Your task to perform on an android device: add a contact in the contacts app Image 0: 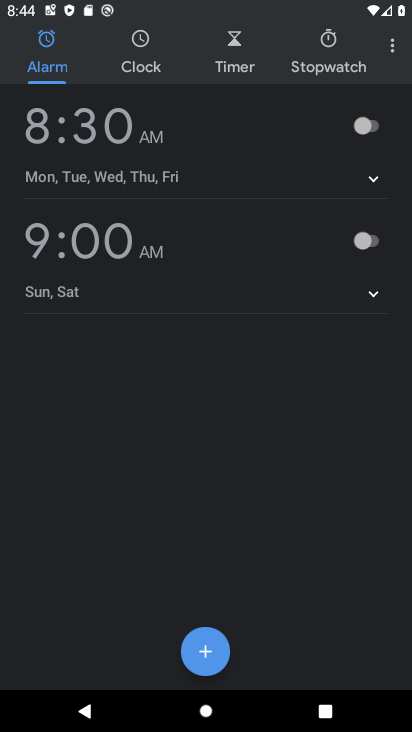
Step 0: press home button
Your task to perform on an android device: add a contact in the contacts app Image 1: 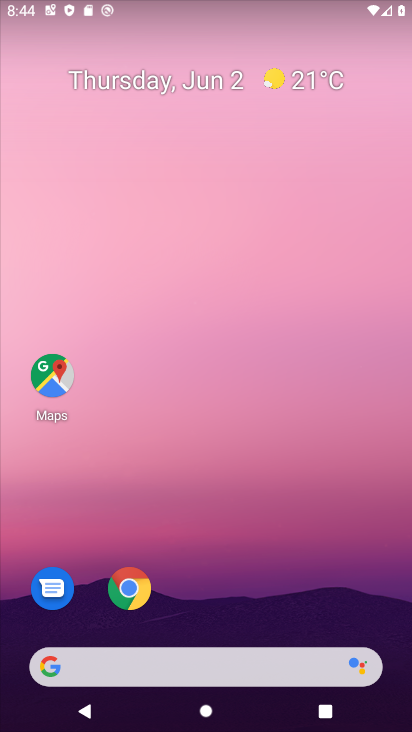
Step 1: drag from (220, 652) to (189, 128)
Your task to perform on an android device: add a contact in the contacts app Image 2: 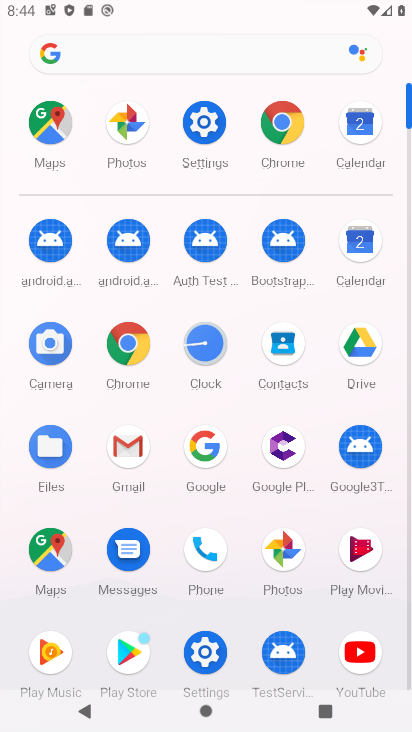
Step 2: click (285, 349)
Your task to perform on an android device: add a contact in the contacts app Image 3: 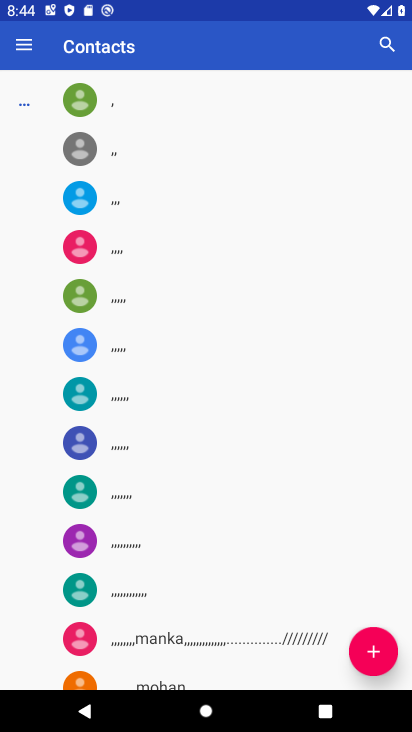
Step 3: click (372, 660)
Your task to perform on an android device: add a contact in the contacts app Image 4: 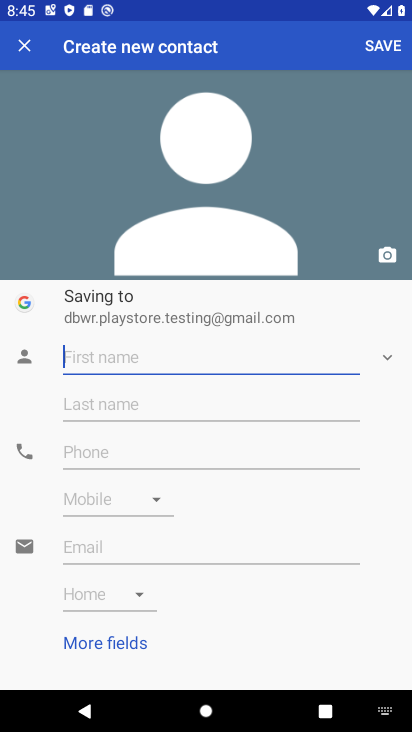
Step 4: type "mcnb"
Your task to perform on an android device: add a contact in the contacts app Image 5: 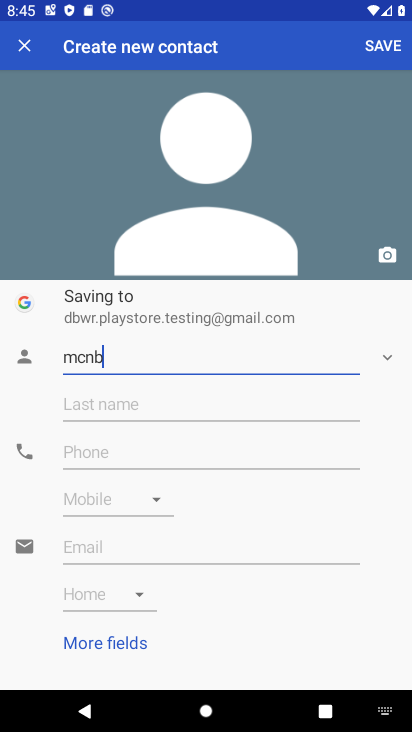
Step 5: click (140, 449)
Your task to perform on an android device: add a contact in the contacts app Image 6: 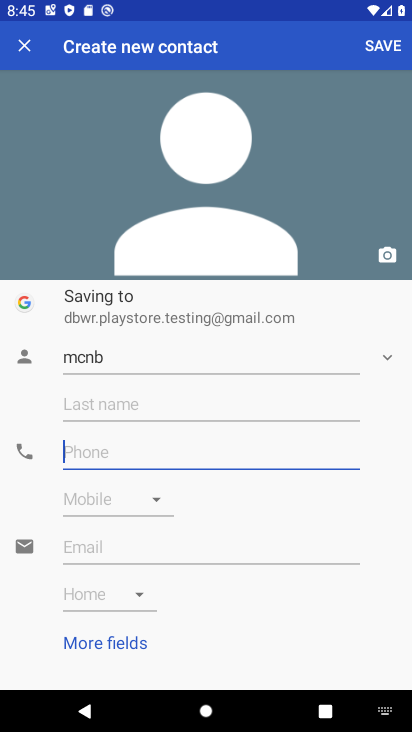
Step 6: type "8787678767"
Your task to perform on an android device: add a contact in the contacts app Image 7: 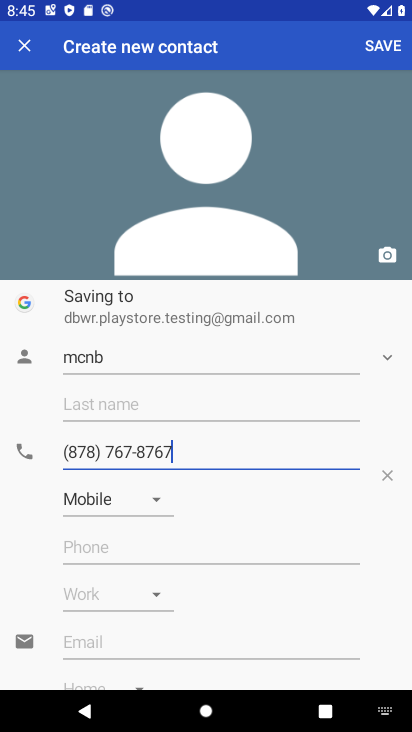
Step 7: click (387, 47)
Your task to perform on an android device: add a contact in the contacts app Image 8: 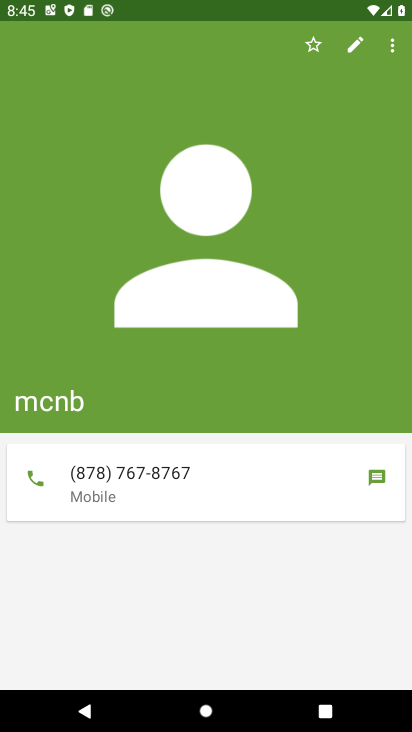
Step 8: task complete